Your task to perform on an android device: Go to Maps Image 0: 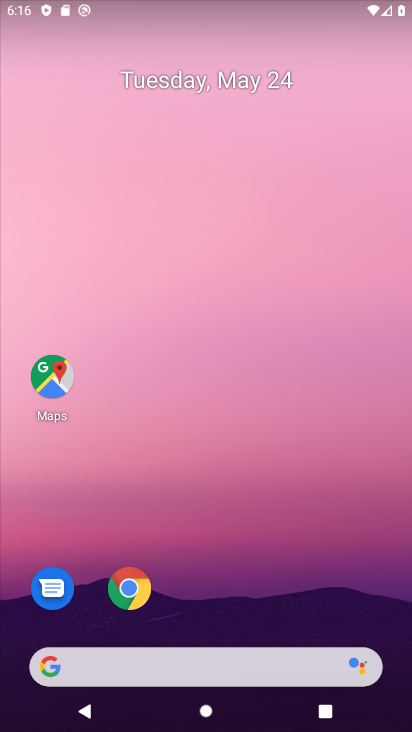
Step 0: drag from (221, 638) to (310, 27)
Your task to perform on an android device: Go to Maps Image 1: 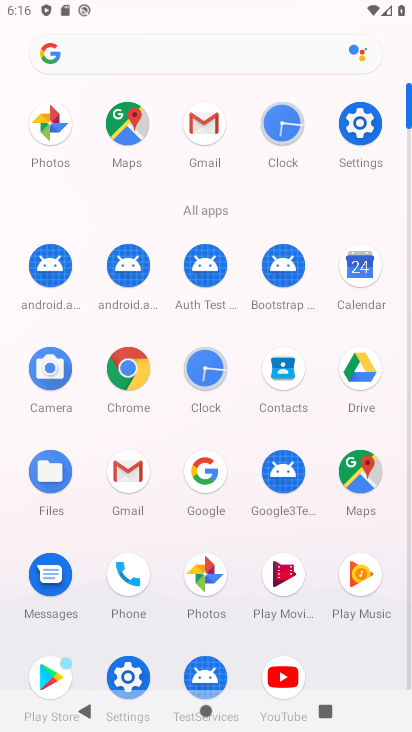
Step 1: click (368, 465)
Your task to perform on an android device: Go to Maps Image 2: 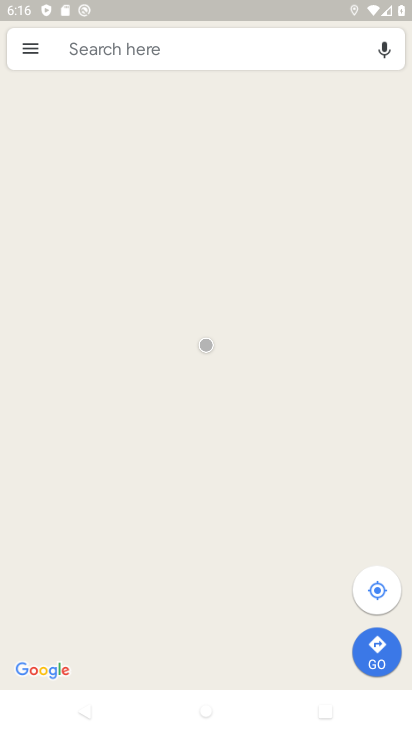
Step 2: task complete